Your task to perform on an android device: Go to internet settings Image 0: 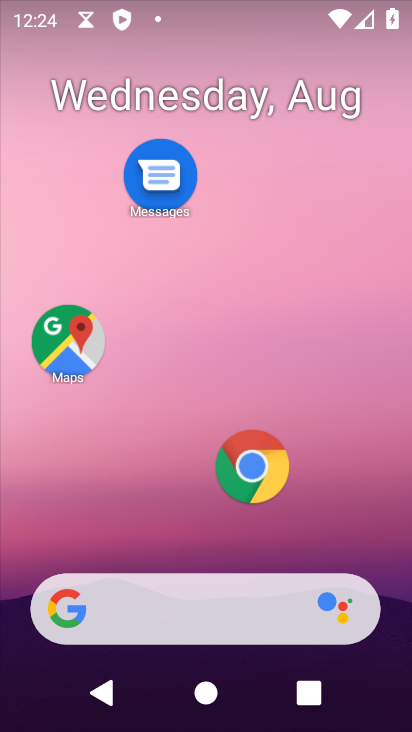
Step 0: drag from (194, 415) to (106, 65)
Your task to perform on an android device: Go to internet settings Image 1: 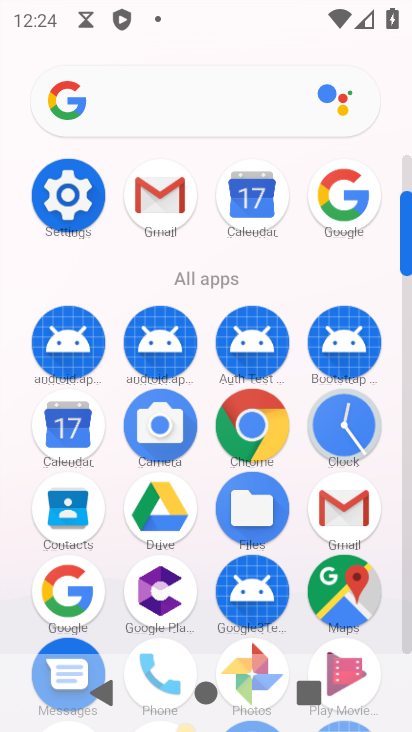
Step 1: click (66, 196)
Your task to perform on an android device: Go to internet settings Image 2: 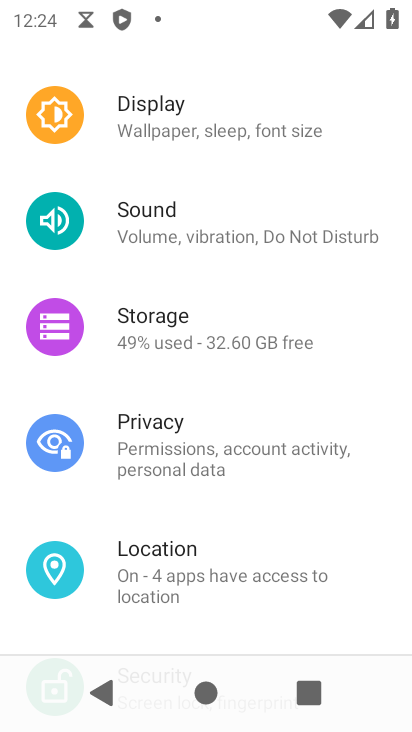
Step 2: drag from (233, 390) to (230, 602)
Your task to perform on an android device: Go to internet settings Image 3: 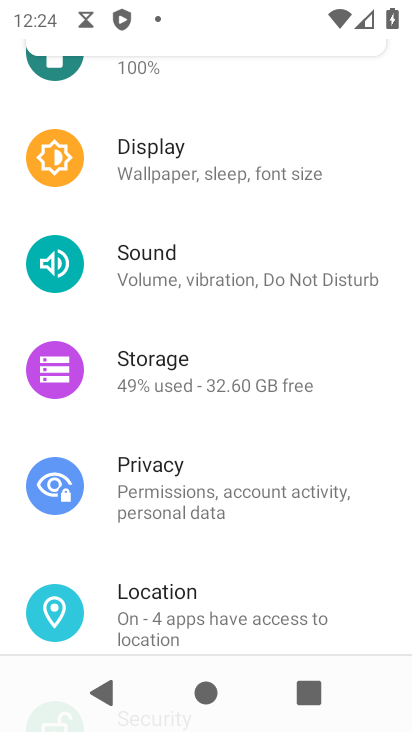
Step 3: drag from (209, 393) to (243, 726)
Your task to perform on an android device: Go to internet settings Image 4: 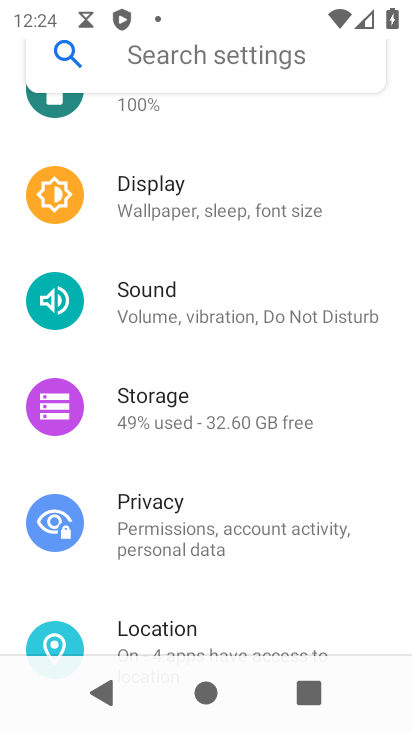
Step 4: drag from (198, 365) to (198, 473)
Your task to perform on an android device: Go to internet settings Image 5: 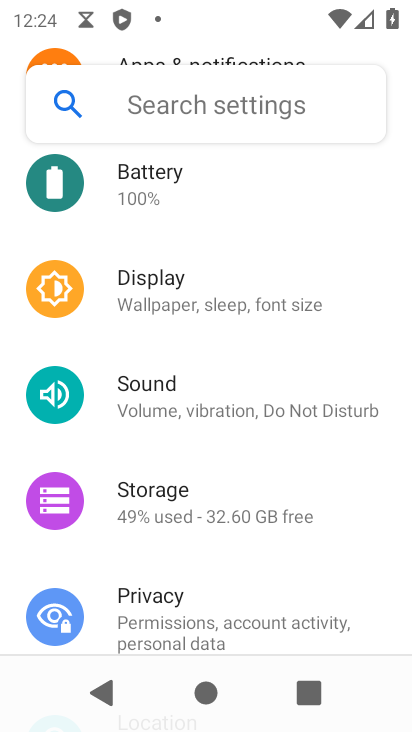
Step 5: drag from (173, 358) to (187, 445)
Your task to perform on an android device: Go to internet settings Image 6: 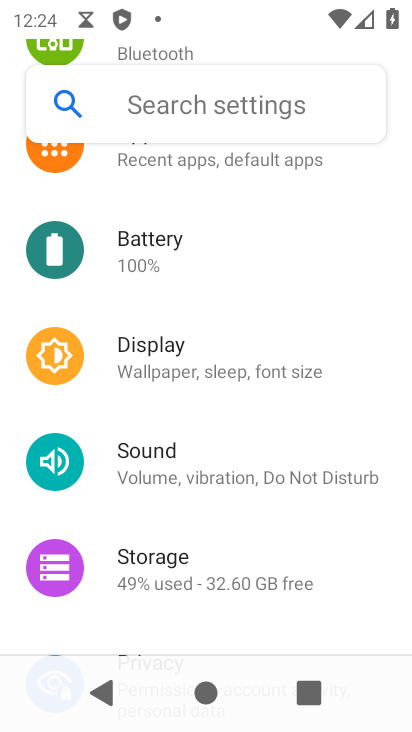
Step 6: drag from (175, 325) to (110, 716)
Your task to perform on an android device: Go to internet settings Image 7: 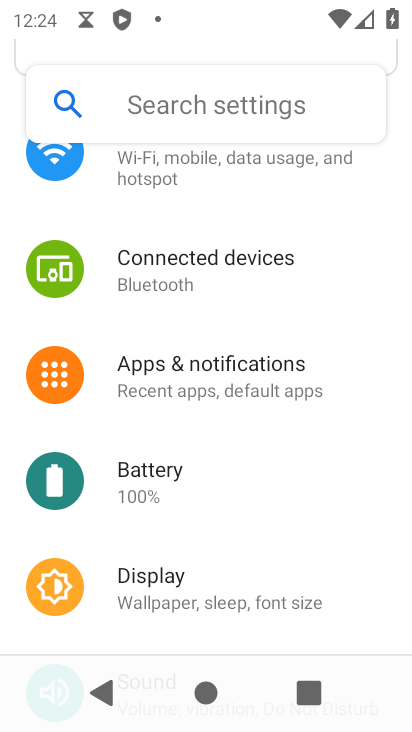
Step 7: drag from (196, 296) to (191, 655)
Your task to perform on an android device: Go to internet settings Image 8: 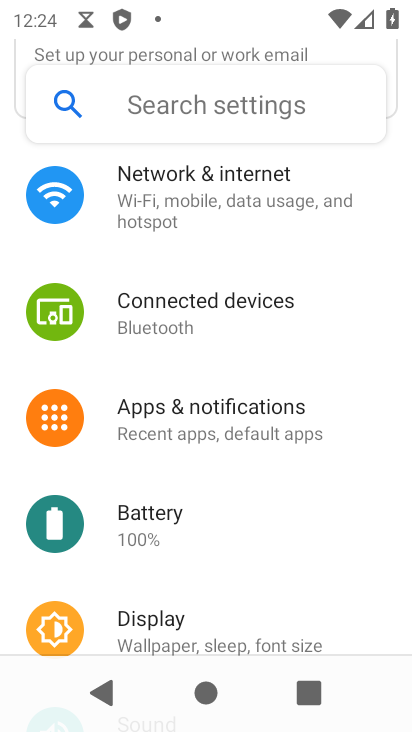
Step 8: click (156, 208)
Your task to perform on an android device: Go to internet settings Image 9: 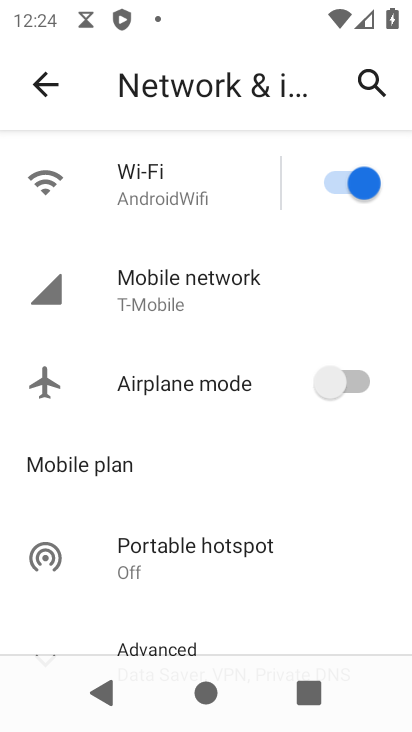
Step 9: task complete